Your task to perform on an android device: Is it going to rain today? Image 0: 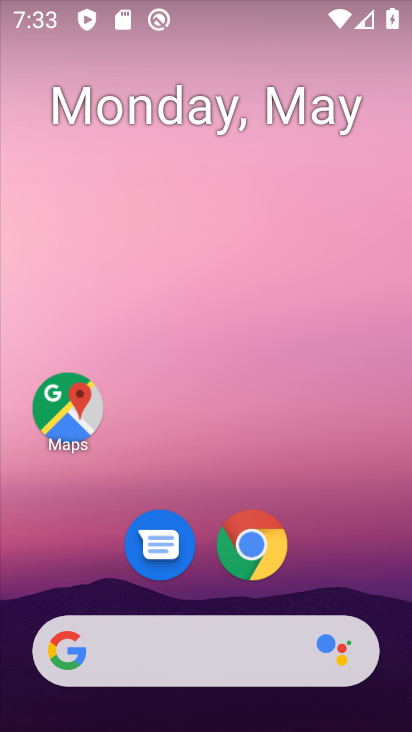
Step 0: drag from (6, 271) to (169, 254)
Your task to perform on an android device: Is it going to rain today? Image 1: 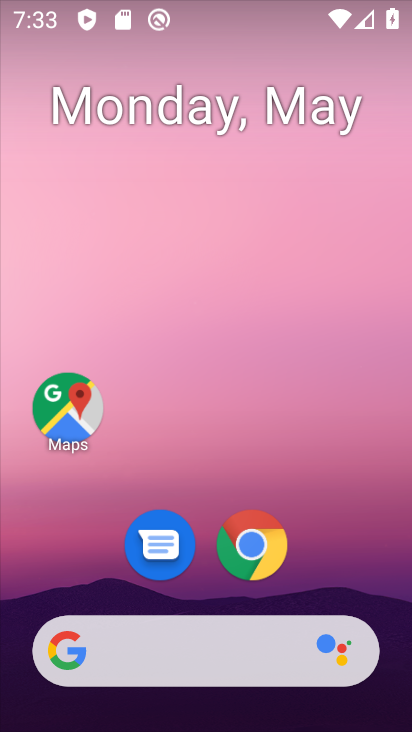
Step 1: drag from (8, 274) to (412, 344)
Your task to perform on an android device: Is it going to rain today? Image 2: 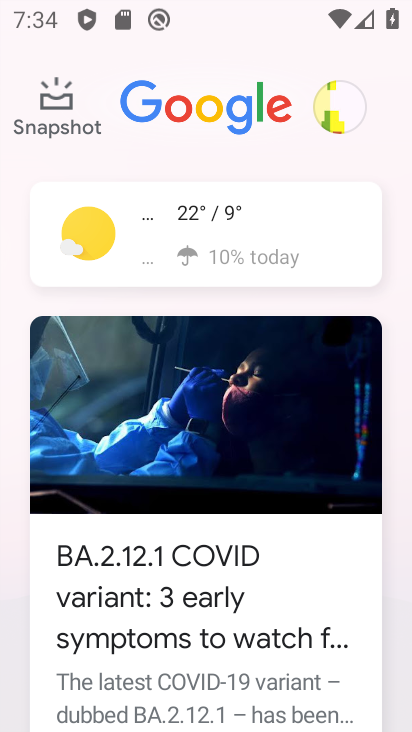
Step 2: click (244, 224)
Your task to perform on an android device: Is it going to rain today? Image 3: 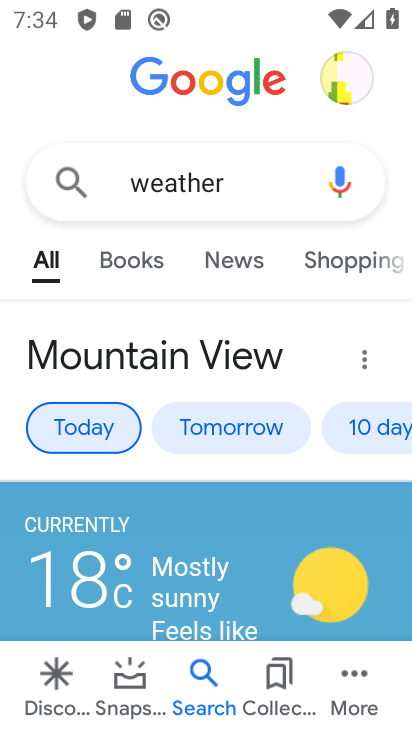
Step 3: task complete